Your task to perform on an android device: Open internet settings Image 0: 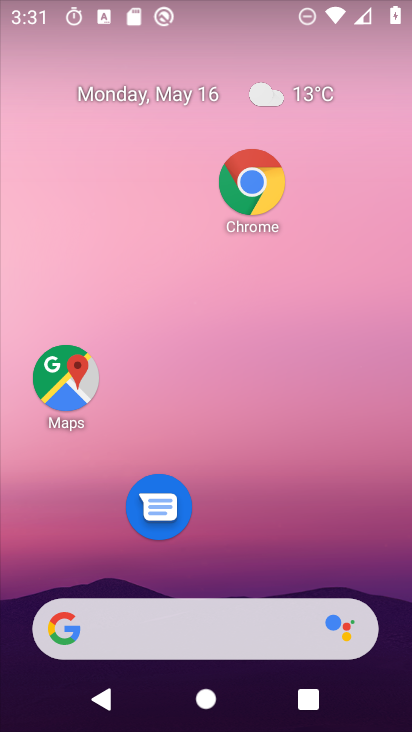
Step 0: drag from (217, 553) to (166, 217)
Your task to perform on an android device: Open internet settings Image 1: 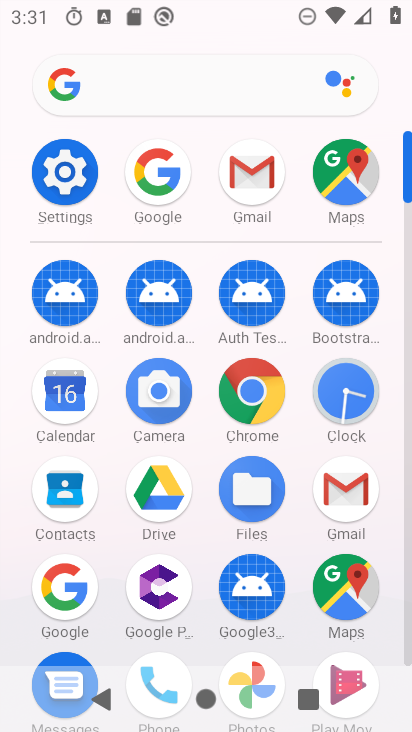
Step 1: drag from (210, 238) to (212, 61)
Your task to perform on an android device: Open internet settings Image 2: 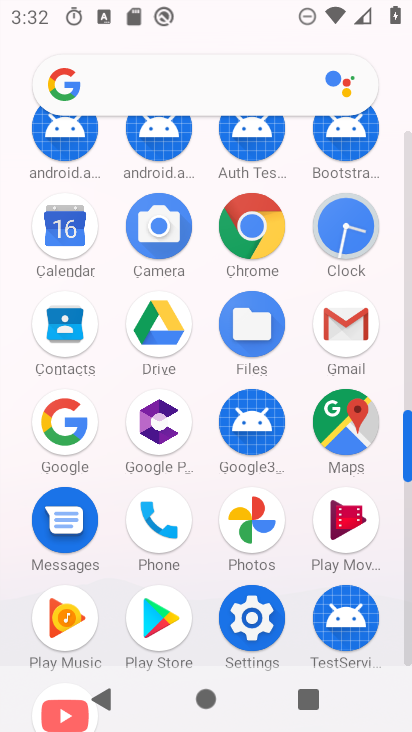
Step 2: click (239, 634)
Your task to perform on an android device: Open internet settings Image 3: 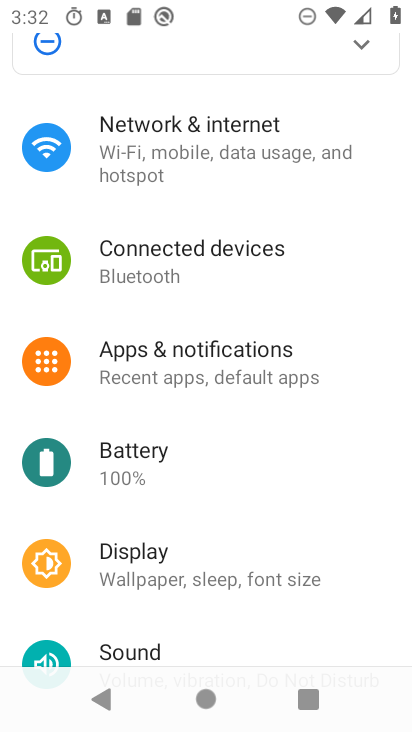
Step 3: click (232, 148)
Your task to perform on an android device: Open internet settings Image 4: 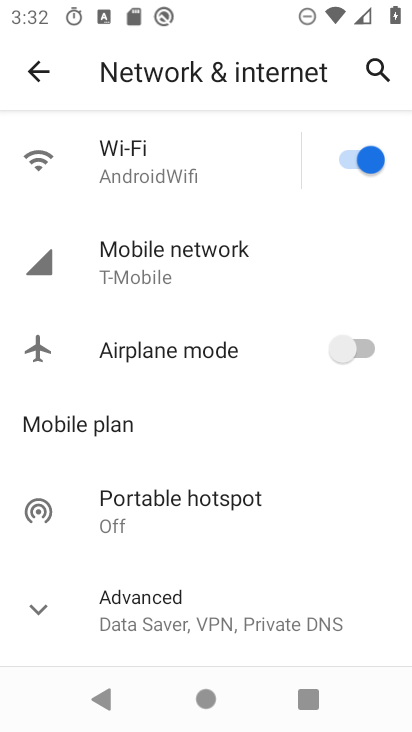
Step 4: click (232, 288)
Your task to perform on an android device: Open internet settings Image 5: 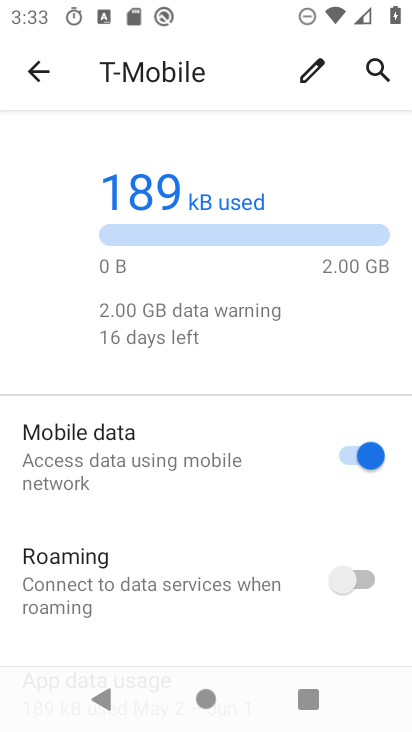
Step 5: task complete